Your task to perform on an android device: turn on showing notifications on the lock screen Image 0: 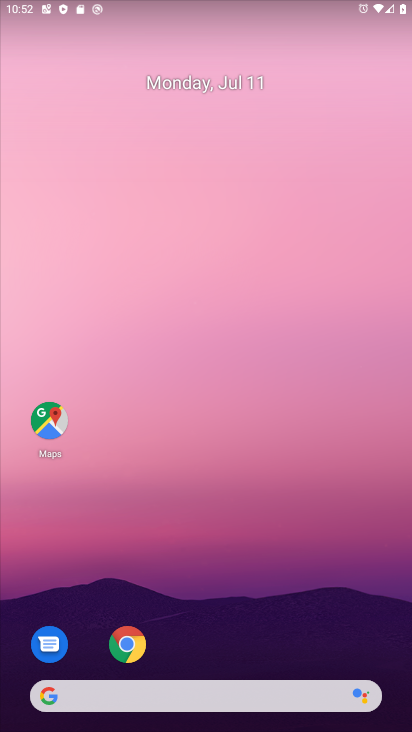
Step 0: press home button
Your task to perform on an android device: turn on showing notifications on the lock screen Image 1: 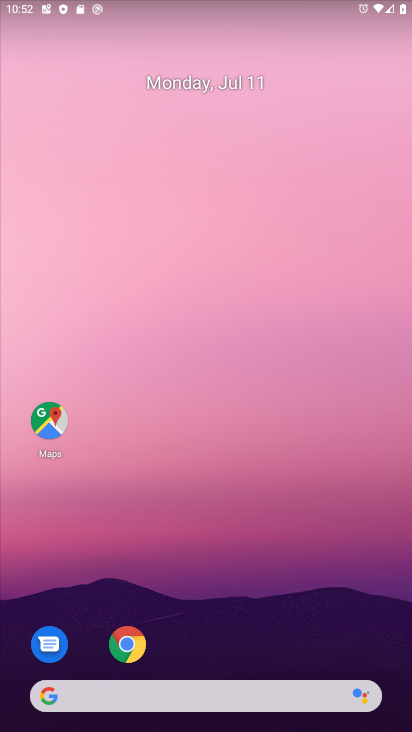
Step 1: drag from (212, 657) to (207, 16)
Your task to perform on an android device: turn on showing notifications on the lock screen Image 2: 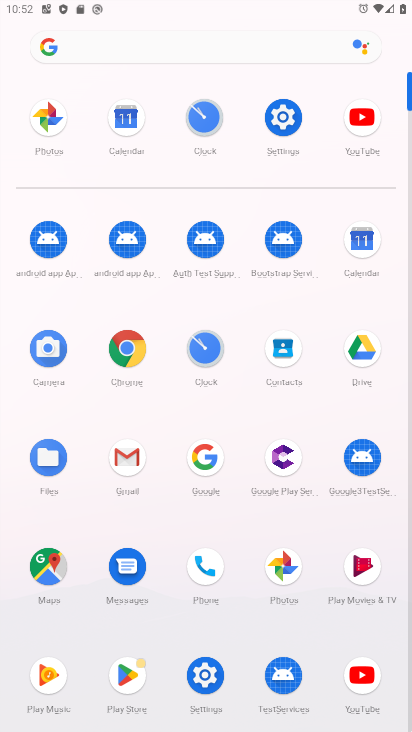
Step 2: click (201, 668)
Your task to perform on an android device: turn on showing notifications on the lock screen Image 3: 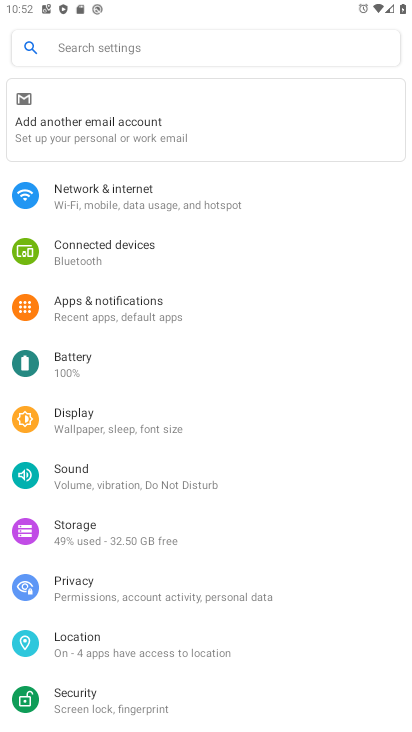
Step 3: click (181, 297)
Your task to perform on an android device: turn on showing notifications on the lock screen Image 4: 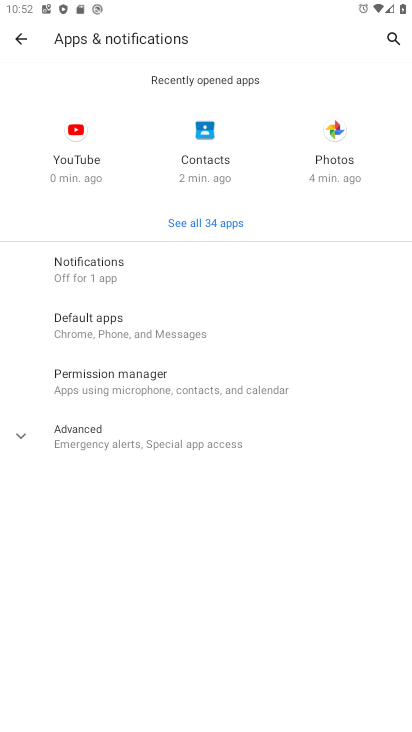
Step 4: click (139, 268)
Your task to perform on an android device: turn on showing notifications on the lock screen Image 5: 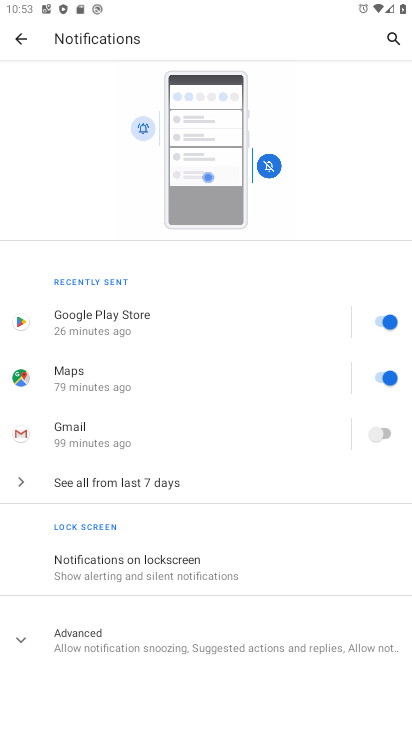
Step 5: click (66, 637)
Your task to perform on an android device: turn on showing notifications on the lock screen Image 6: 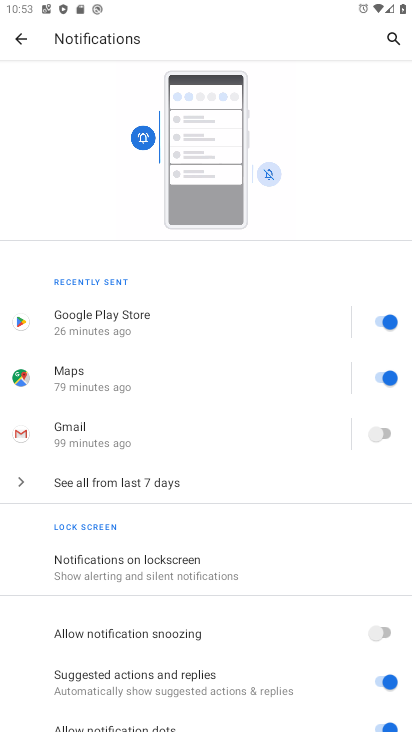
Step 6: click (179, 572)
Your task to perform on an android device: turn on showing notifications on the lock screen Image 7: 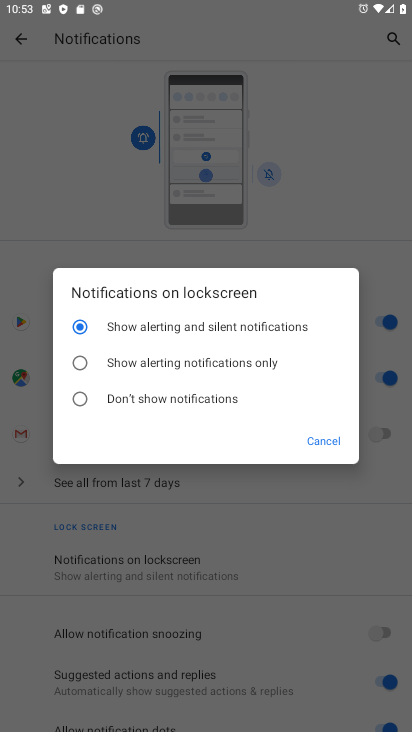
Step 7: click (77, 359)
Your task to perform on an android device: turn on showing notifications on the lock screen Image 8: 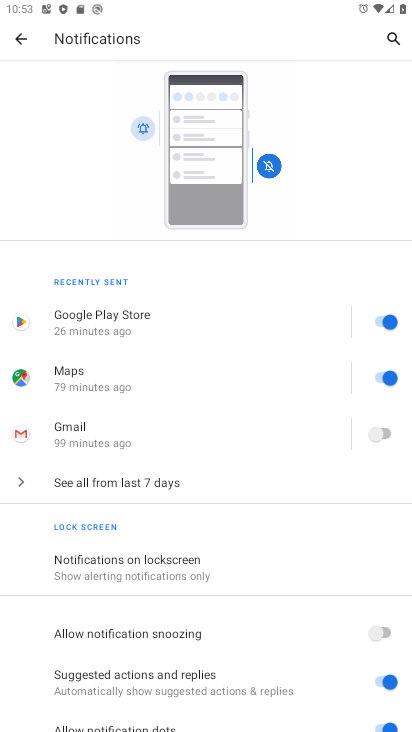
Step 8: task complete